Your task to perform on an android device: What's the weather going to be tomorrow? Image 0: 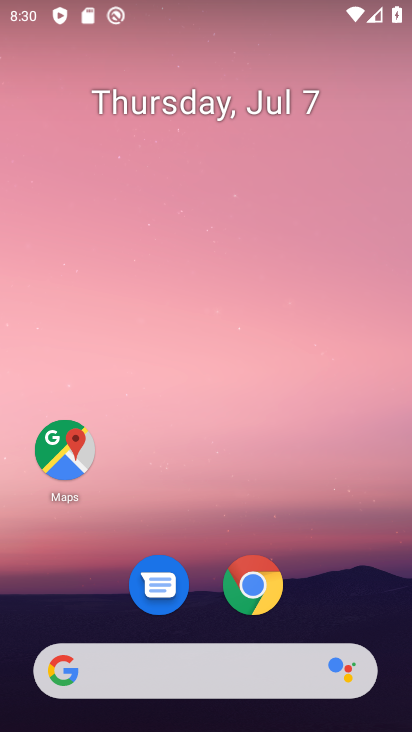
Step 0: click (254, 678)
Your task to perform on an android device: What's the weather going to be tomorrow? Image 1: 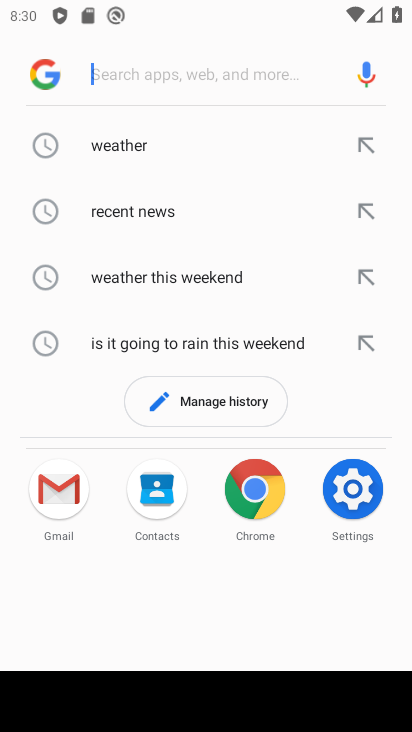
Step 1: click (119, 144)
Your task to perform on an android device: What's the weather going to be tomorrow? Image 2: 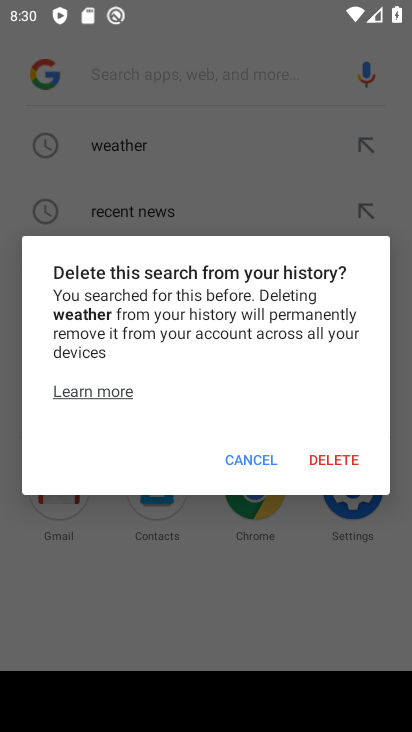
Step 2: click (260, 463)
Your task to perform on an android device: What's the weather going to be tomorrow? Image 3: 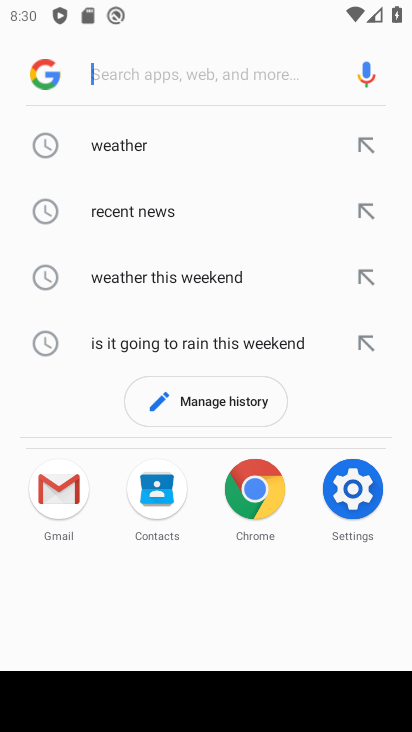
Step 3: click (112, 140)
Your task to perform on an android device: What's the weather going to be tomorrow? Image 4: 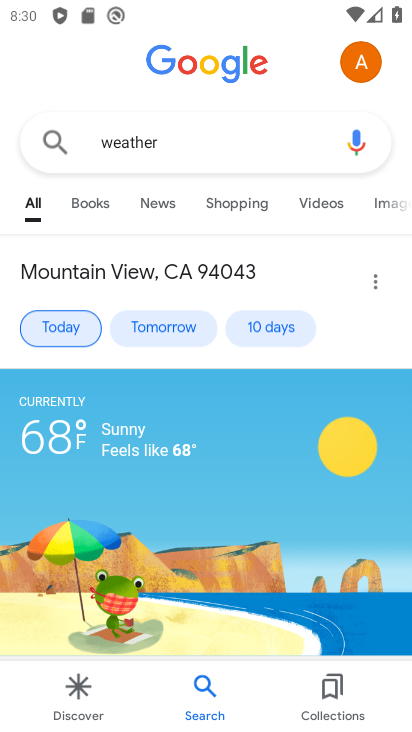
Step 4: click (90, 330)
Your task to perform on an android device: What's the weather going to be tomorrow? Image 5: 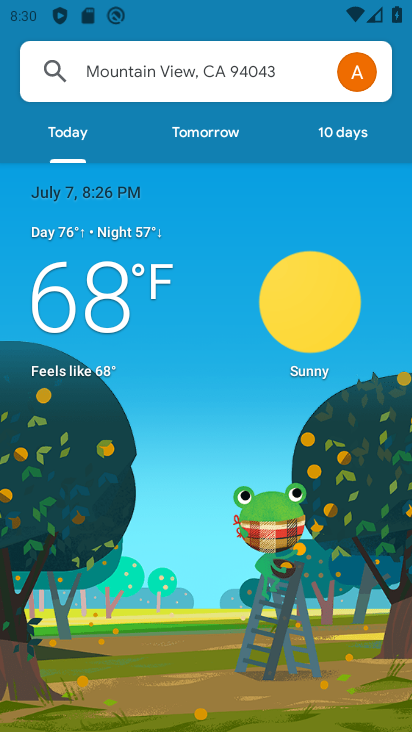
Step 5: click (229, 141)
Your task to perform on an android device: What's the weather going to be tomorrow? Image 6: 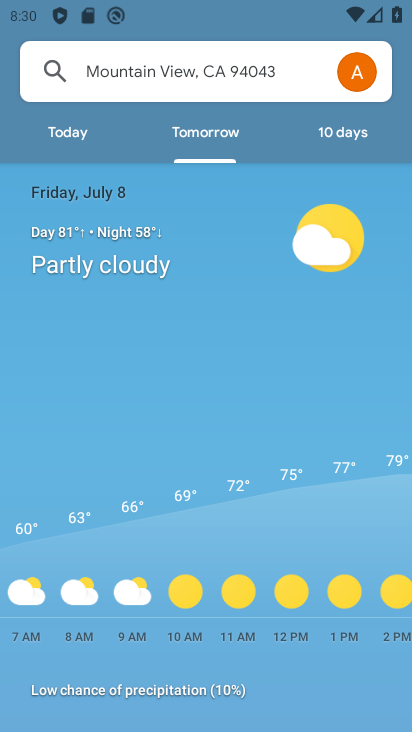
Step 6: task complete